Your task to perform on an android device: turn off location Image 0: 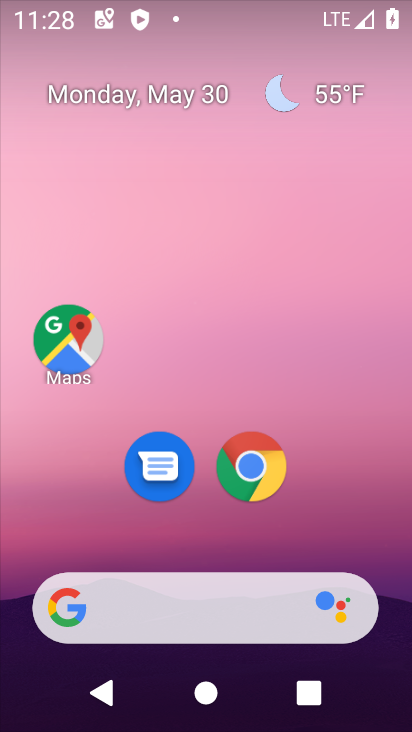
Step 0: drag from (373, 594) to (345, 124)
Your task to perform on an android device: turn off location Image 1: 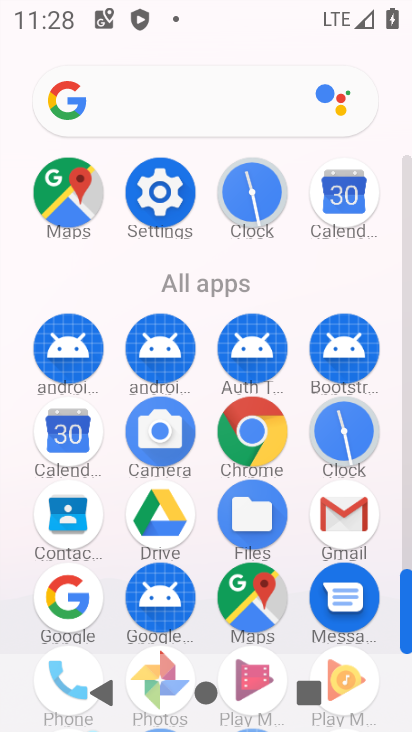
Step 1: click (167, 208)
Your task to perform on an android device: turn off location Image 2: 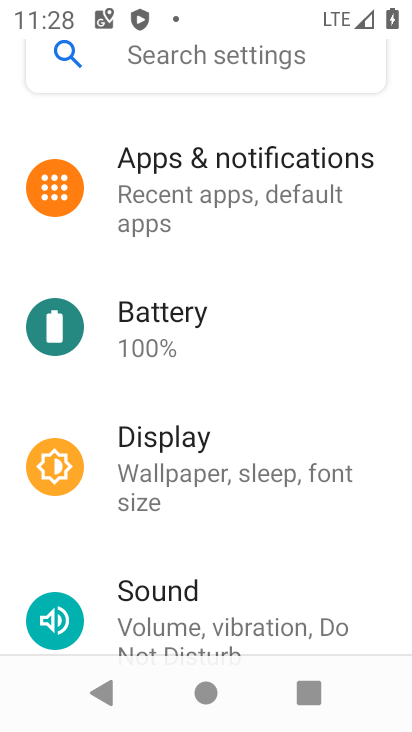
Step 2: drag from (249, 554) to (276, 119)
Your task to perform on an android device: turn off location Image 3: 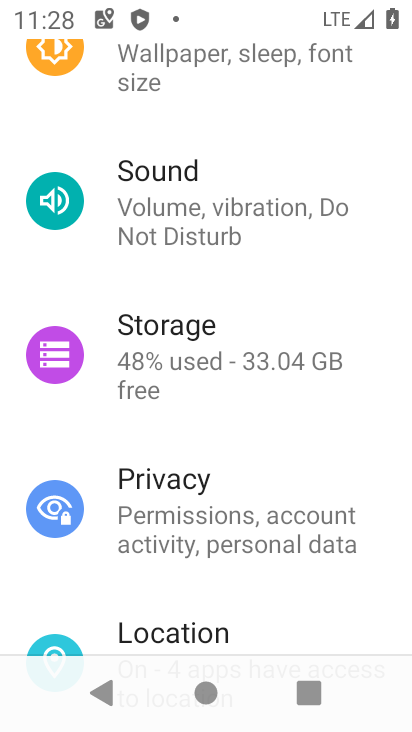
Step 3: click (215, 626)
Your task to perform on an android device: turn off location Image 4: 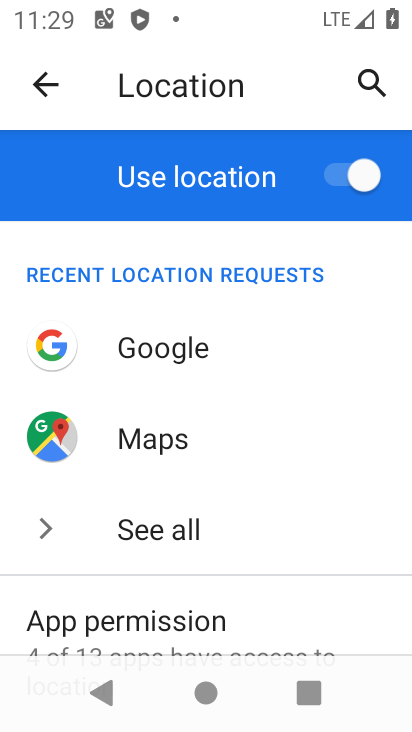
Step 4: click (323, 169)
Your task to perform on an android device: turn off location Image 5: 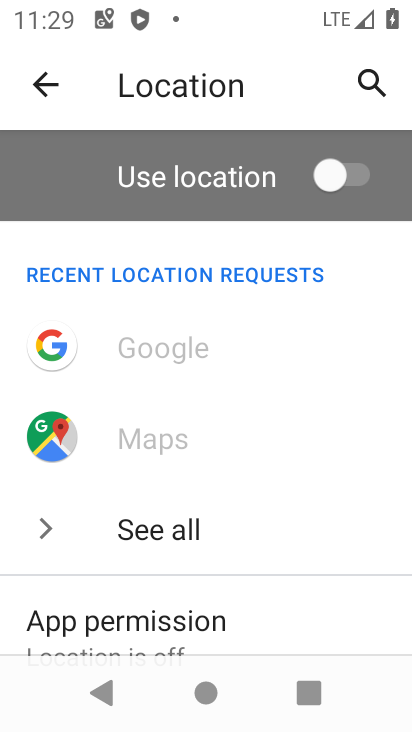
Step 5: task complete